Your task to perform on an android device: When is my next meeting? Image 0: 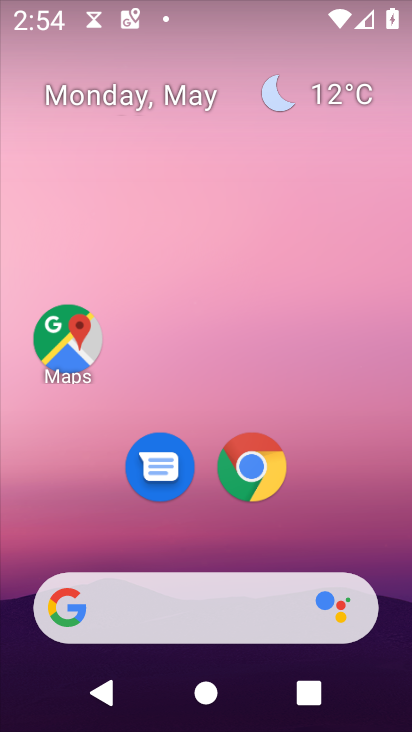
Step 0: drag from (382, 522) to (259, 231)
Your task to perform on an android device: When is my next meeting? Image 1: 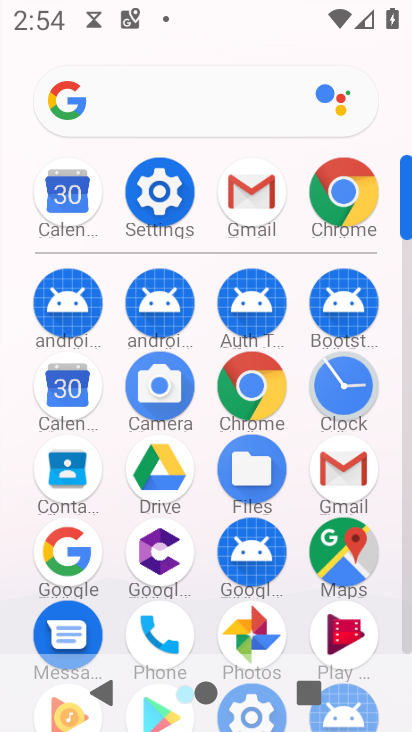
Step 1: click (52, 201)
Your task to perform on an android device: When is my next meeting? Image 2: 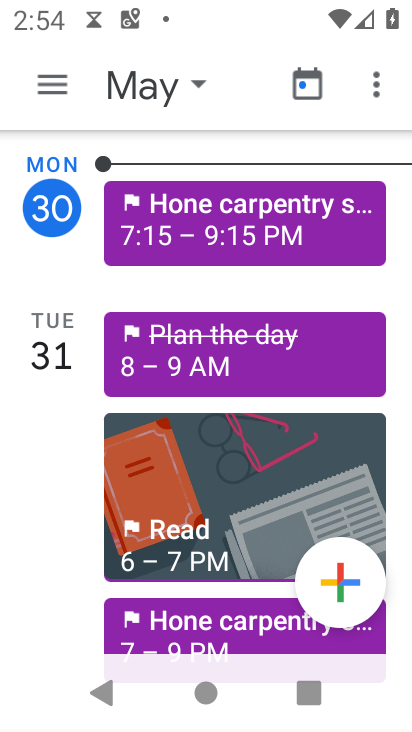
Step 2: task complete